Your task to perform on an android device: Open maps Image 0: 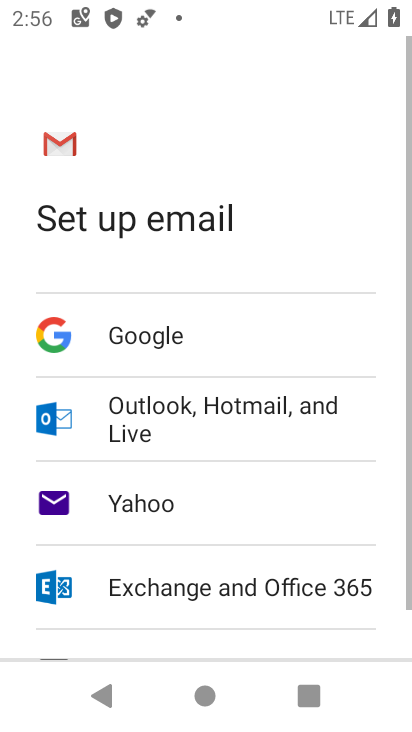
Step 0: press back button
Your task to perform on an android device: Open maps Image 1: 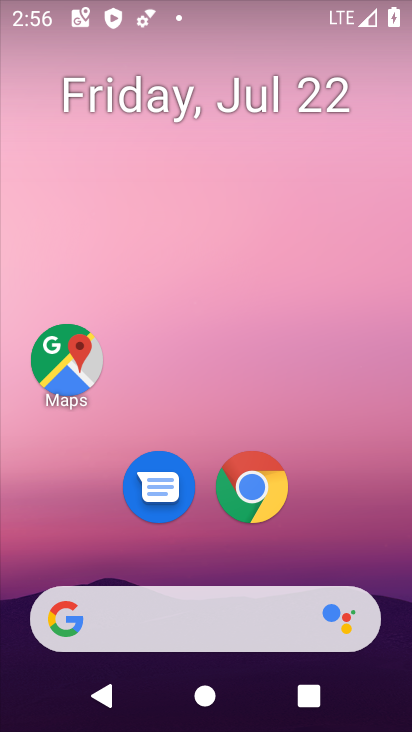
Step 1: click (55, 346)
Your task to perform on an android device: Open maps Image 2: 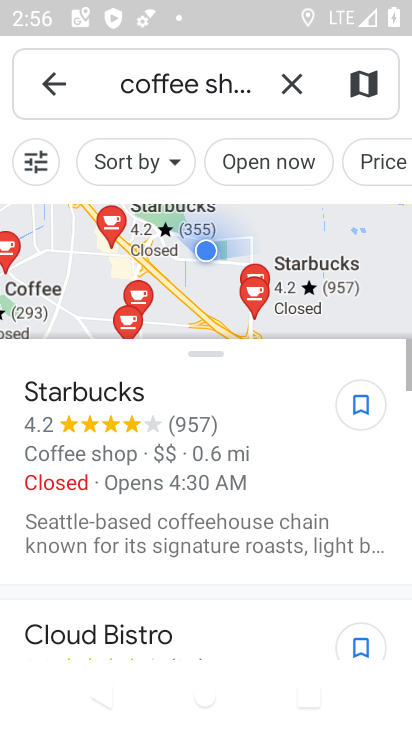
Step 2: task complete